Your task to perform on an android device: Go to Wikipedia Image 0: 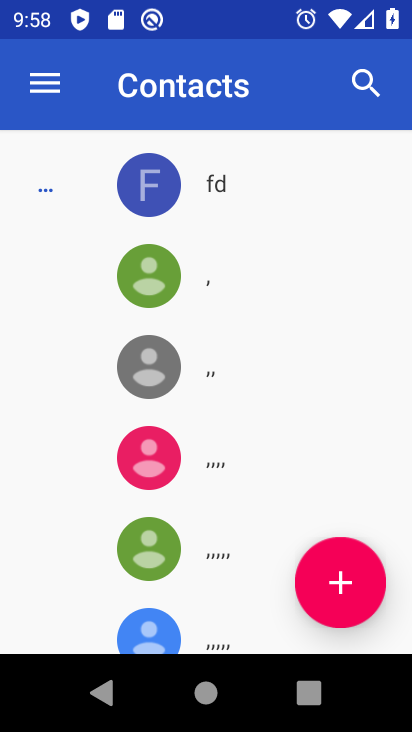
Step 0: press back button
Your task to perform on an android device: Go to Wikipedia Image 1: 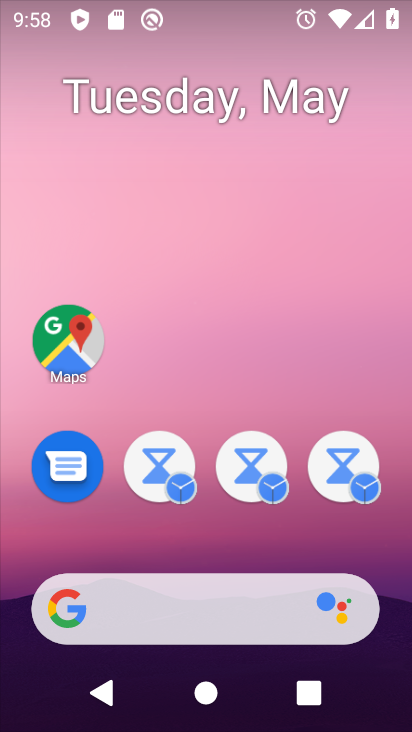
Step 1: drag from (277, 684) to (192, 234)
Your task to perform on an android device: Go to Wikipedia Image 2: 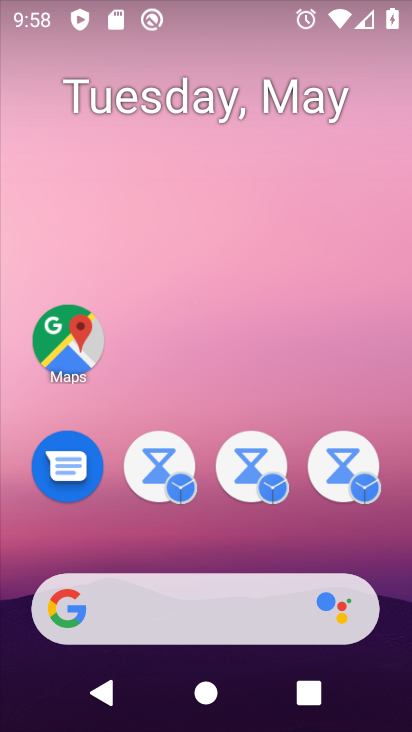
Step 2: drag from (260, 643) to (196, 228)
Your task to perform on an android device: Go to Wikipedia Image 3: 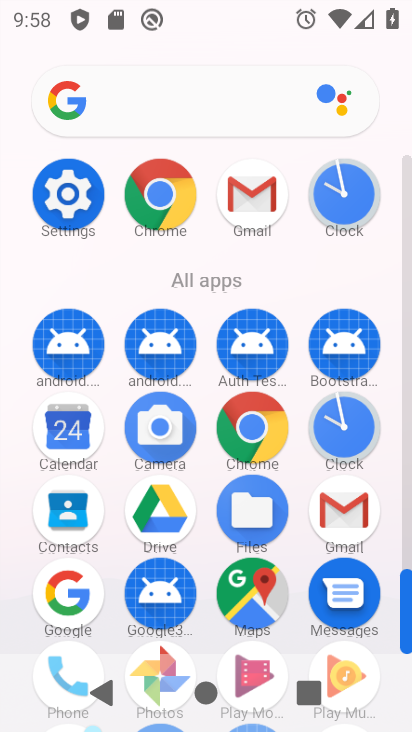
Step 3: click (147, 206)
Your task to perform on an android device: Go to Wikipedia Image 4: 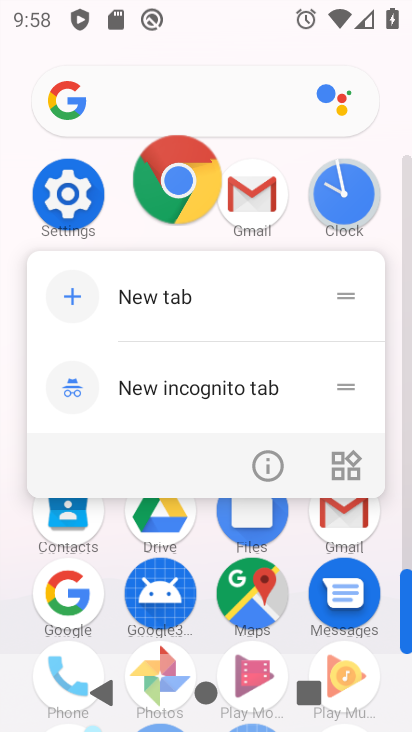
Step 4: click (166, 190)
Your task to perform on an android device: Go to Wikipedia Image 5: 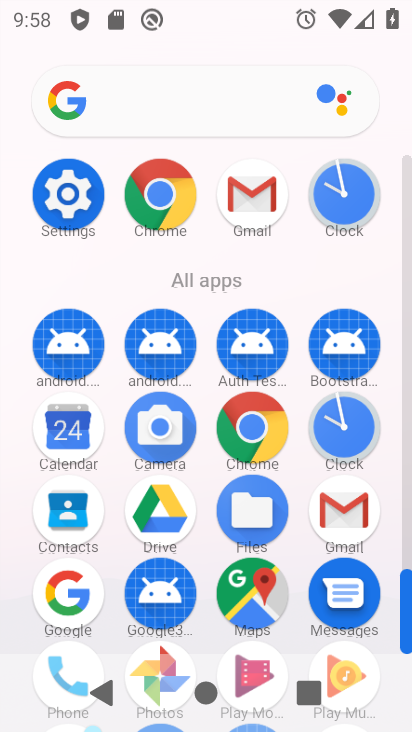
Step 5: click (166, 190)
Your task to perform on an android device: Go to Wikipedia Image 6: 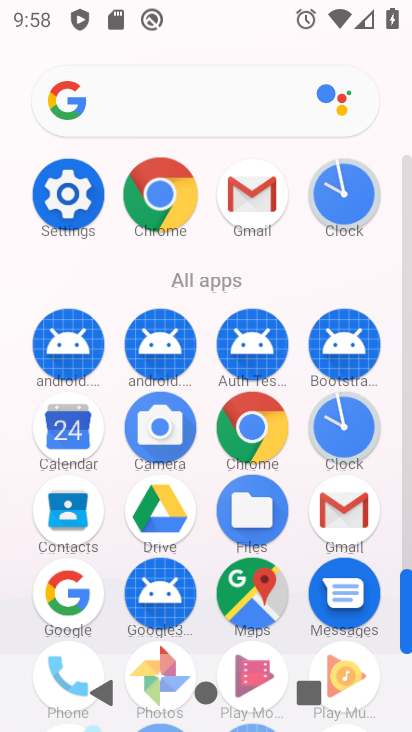
Step 6: click (166, 190)
Your task to perform on an android device: Go to Wikipedia Image 7: 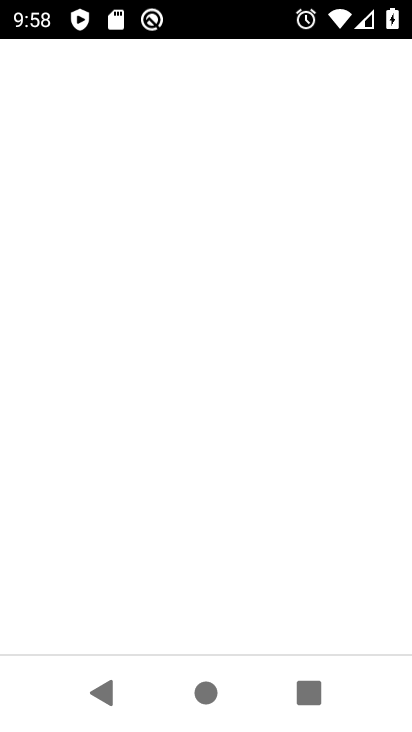
Step 7: click (166, 190)
Your task to perform on an android device: Go to Wikipedia Image 8: 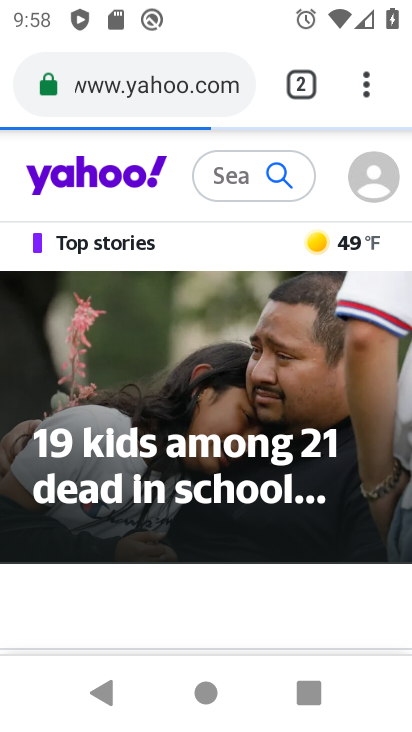
Step 8: drag from (363, 95) to (82, 169)
Your task to perform on an android device: Go to Wikipedia Image 9: 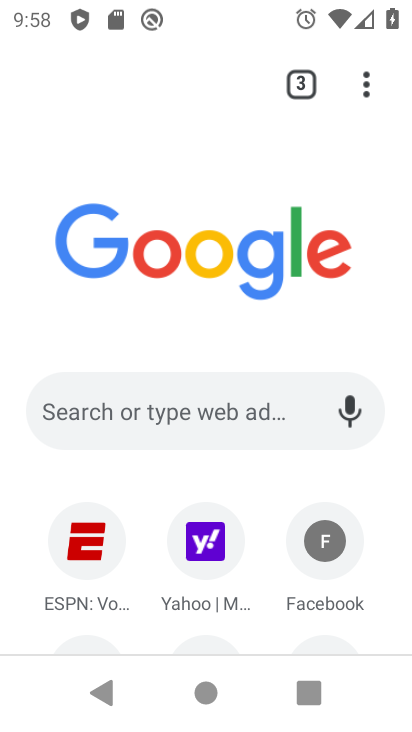
Step 9: drag from (263, 491) to (258, 245)
Your task to perform on an android device: Go to Wikipedia Image 10: 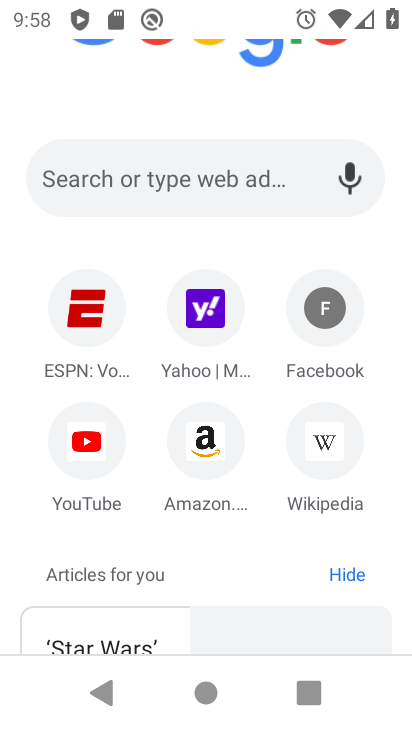
Step 10: drag from (265, 467) to (263, 216)
Your task to perform on an android device: Go to Wikipedia Image 11: 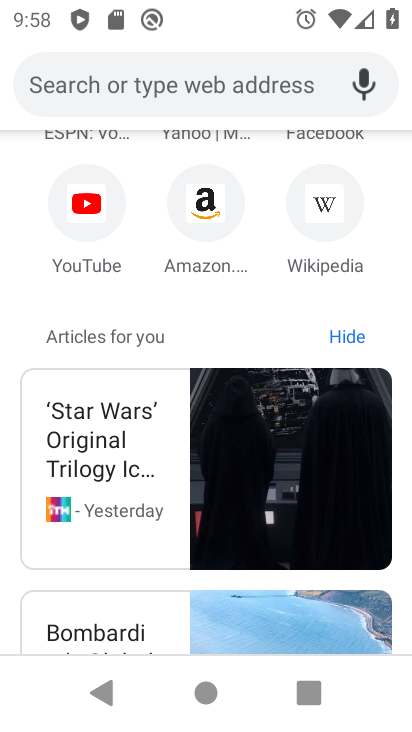
Step 11: click (329, 196)
Your task to perform on an android device: Go to Wikipedia Image 12: 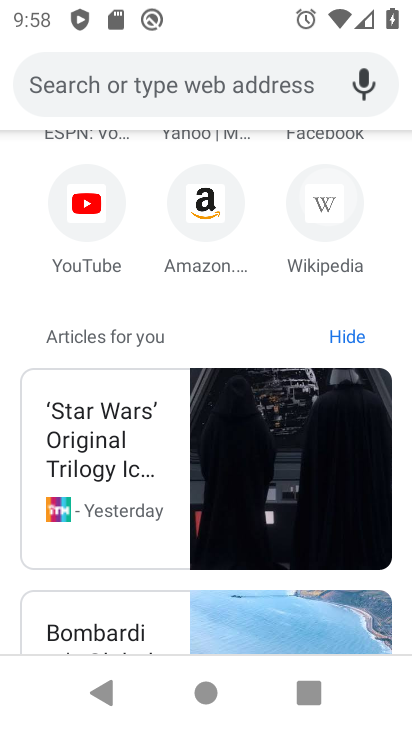
Step 12: click (329, 196)
Your task to perform on an android device: Go to Wikipedia Image 13: 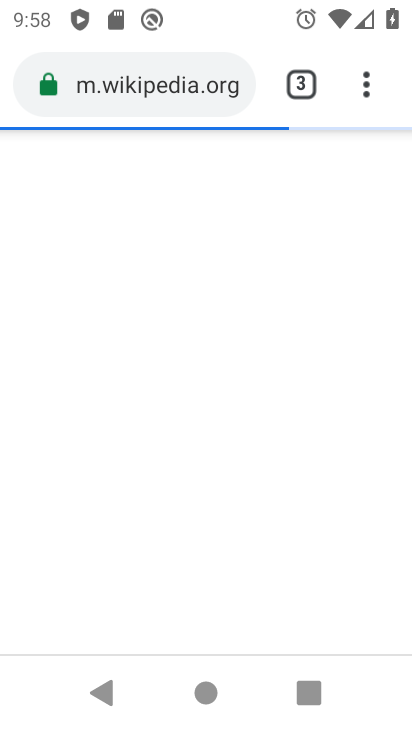
Step 13: click (329, 197)
Your task to perform on an android device: Go to Wikipedia Image 14: 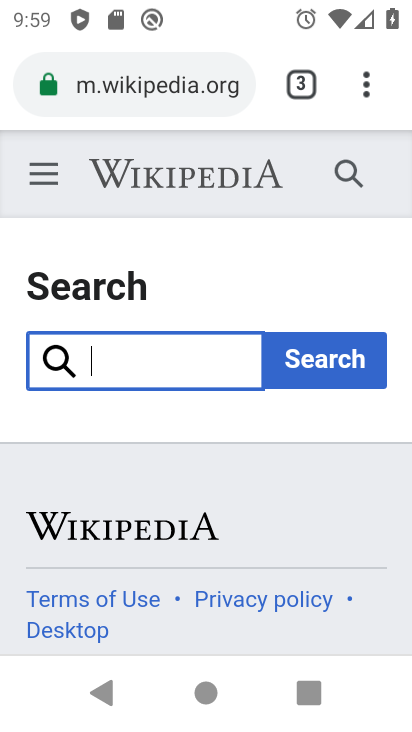
Step 14: task complete